Your task to perform on an android device: Open notification settings Image 0: 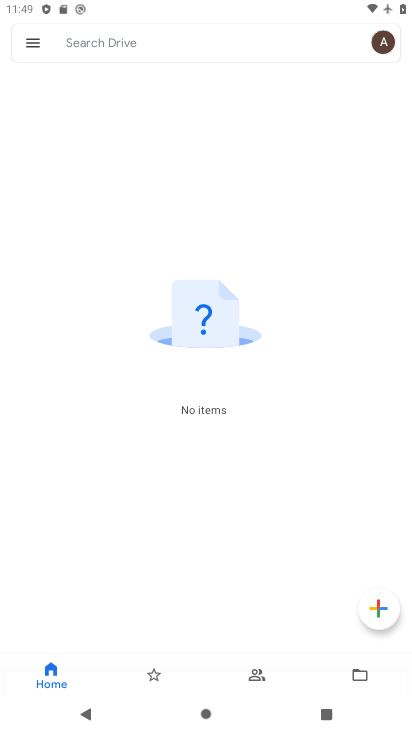
Step 0: press home button
Your task to perform on an android device: Open notification settings Image 1: 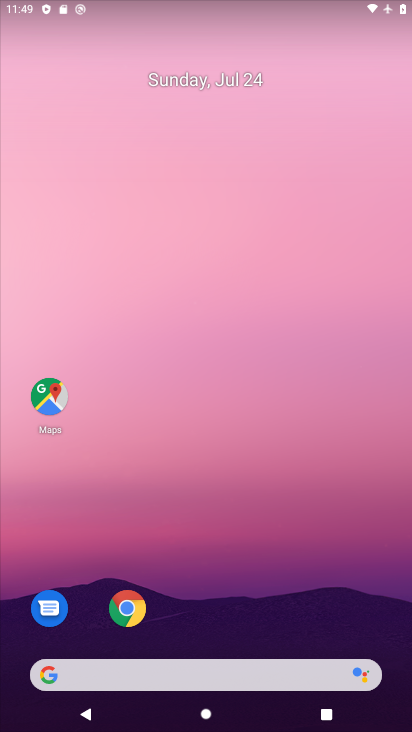
Step 1: drag from (243, 647) to (252, 239)
Your task to perform on an android device: Open notification settings Image 2: 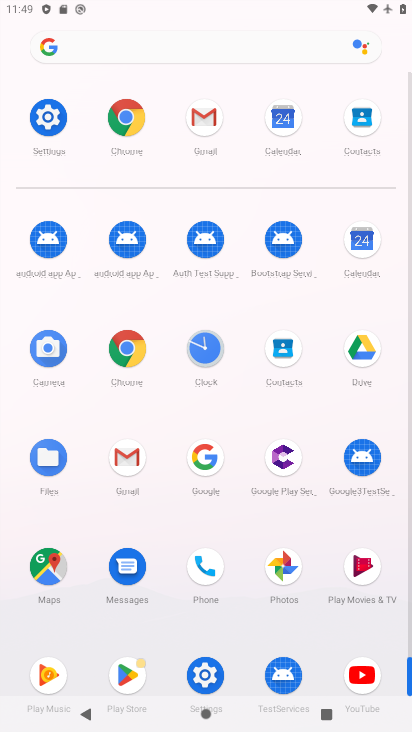
Step 2: click (57, 122)
Your task to perform on an android device: Open notification settings Image 3: 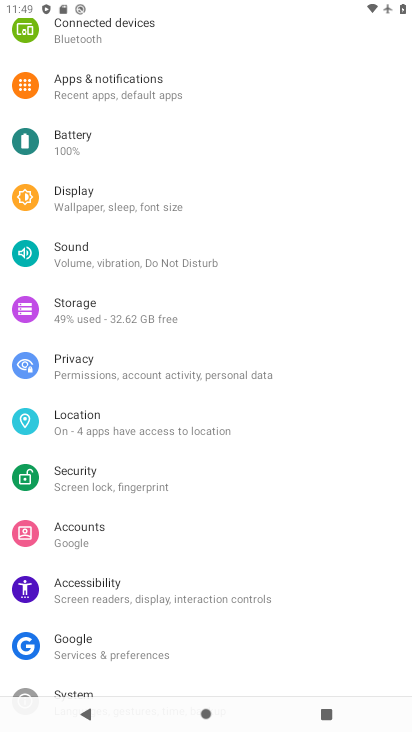
Step 3: drag from (174, 241) to (166, 533)
Your task to perform on an android device: Open notification settings Image 4: 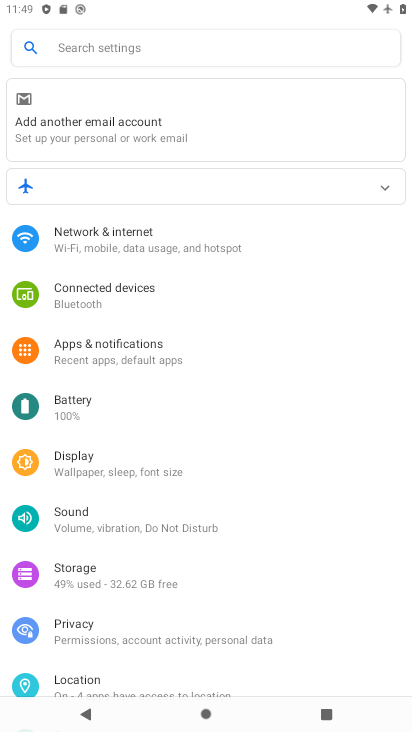
Step 4: click (150, 367)
Your task to perform on an android device: Open notification settings Image 5: 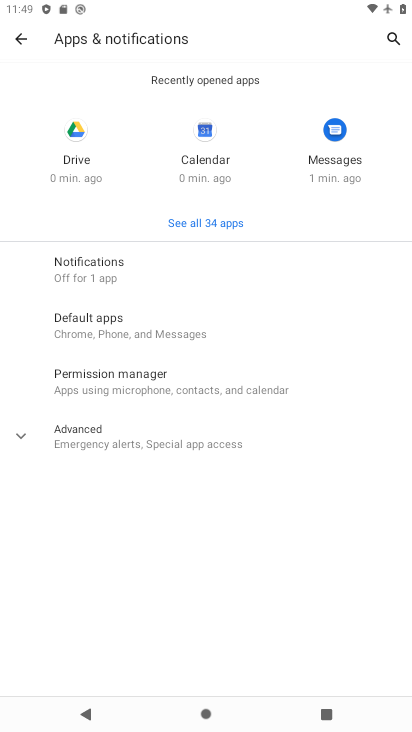
Step 5: click (131, 283)
Your task to perform on an android device: Open notification settings Image 6: 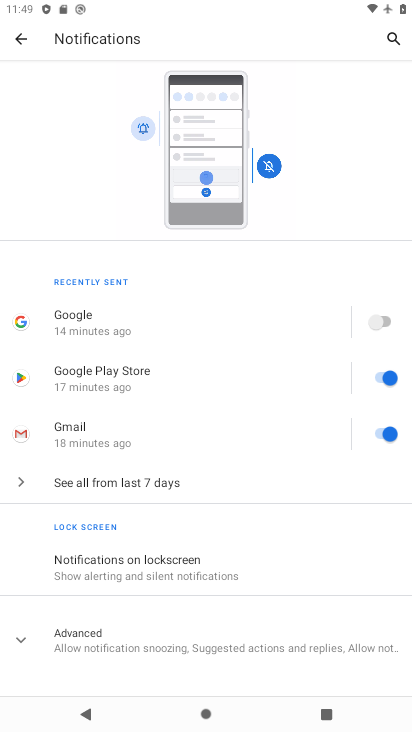
Step 6: click (386, 324)
Your task to perform on an android device: Open notification settings Image 7: 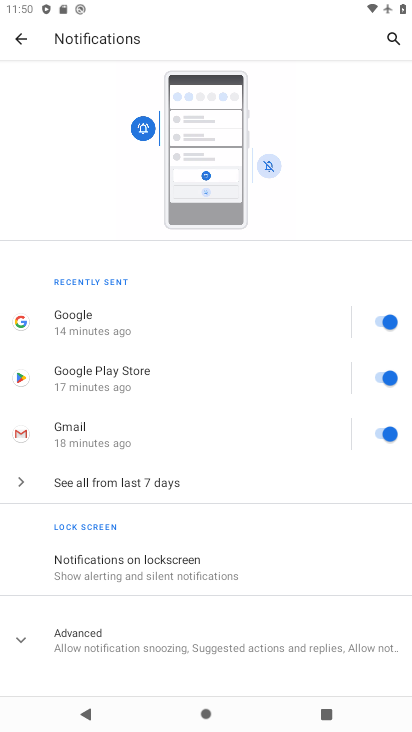
Step 7: task complete